Your task to perform on an android device: Open calendar and show me the second week of next month Image 0: 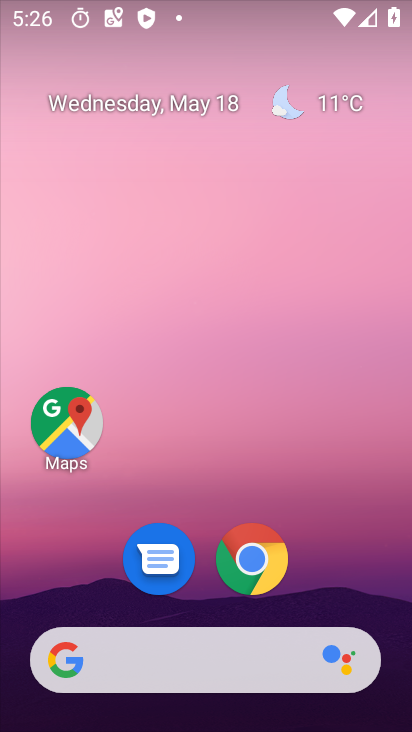
Step 0: drag from (201, 602) to (256, 31)
Your task to perform on an android device: Open calendar and show me the second week of next month Image 1: 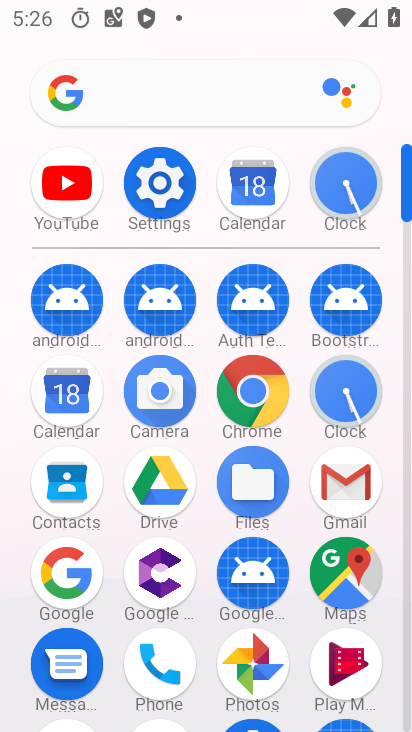
Step 1: click (70, 397)
Your task to perform on an android device: Open calendar and show me the second week of next month Image 2: 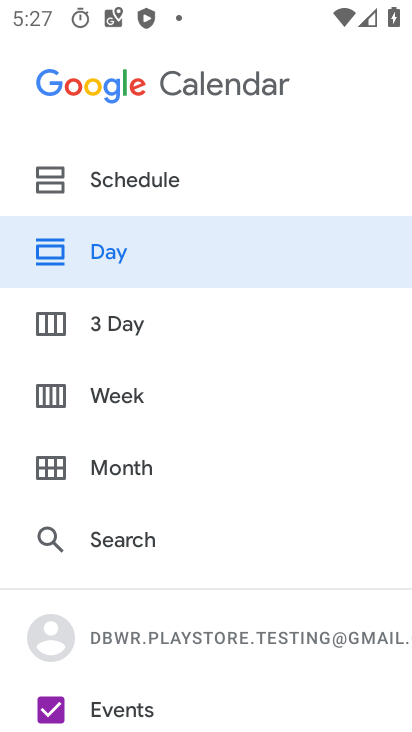
Step 2: click (126, 165)
Your task to perform on an android device: Open calendar and show me the second week of next month Image 3: 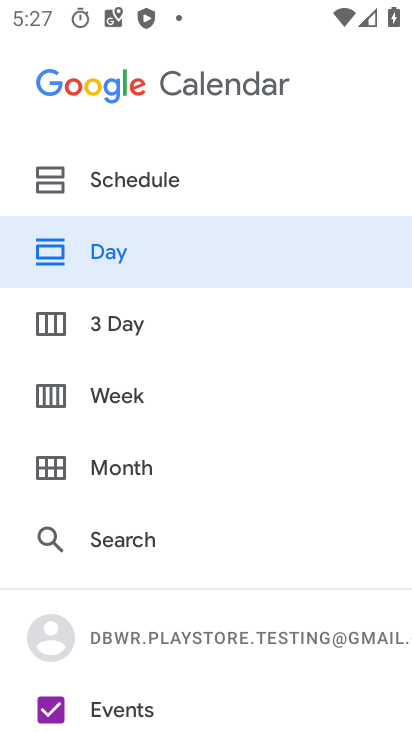
Step 3: click (140, 176)
Your task to perform on an android device: Open calendar and show me the second week of next month Image 4: 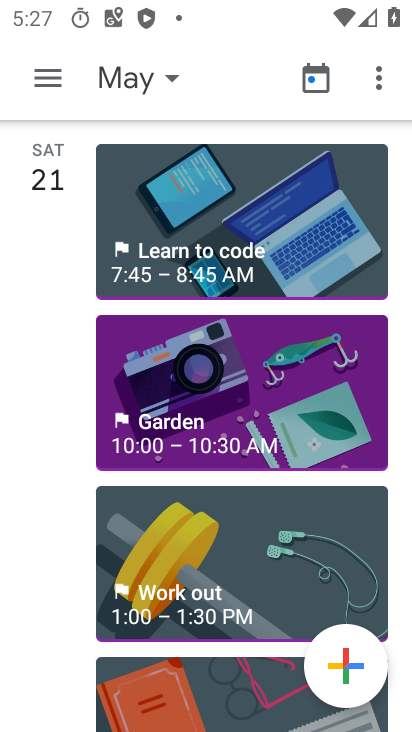
Step 4: click (134, 77)
Your task to perform on an android device: Open calendar and show me the second week of next month Image 5: 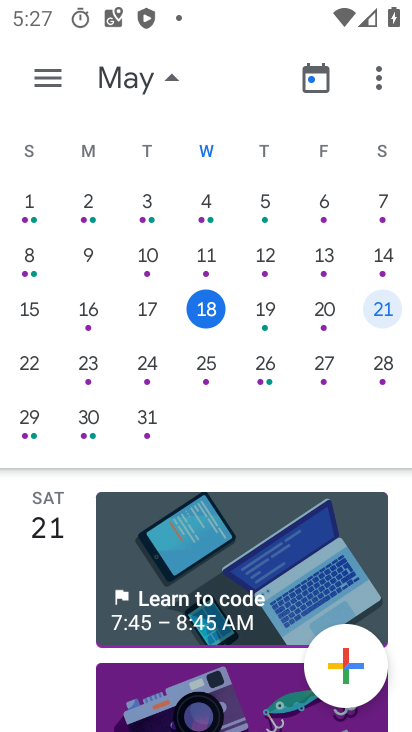
Step 5: drag from (355, 293) to (38, 259)
Your task to perform on an android device: Open calendar and show me the second week of next month Image 6: 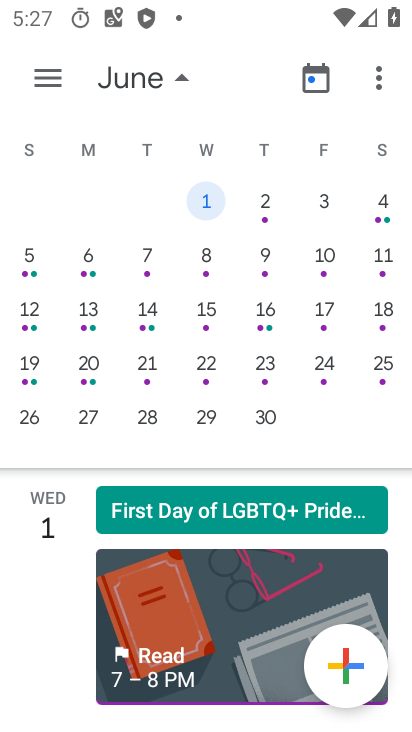
Step 6: click (76, 254)
Your task to perform on an android device: Open calendar and show me the second week of next month Image 7: 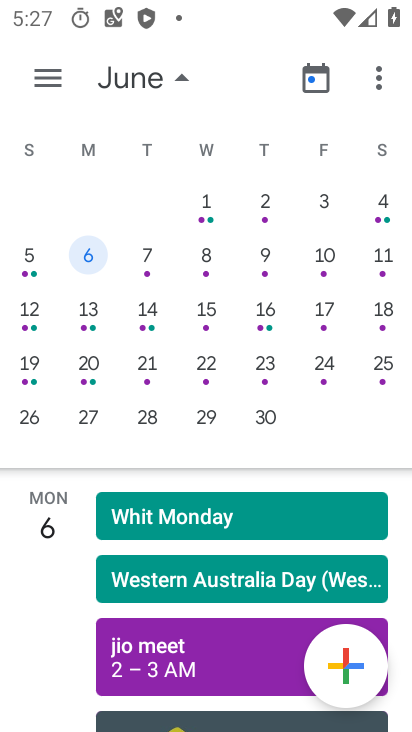
Step 7: task complete